Your task to perform on an android device: check storage Image 0: 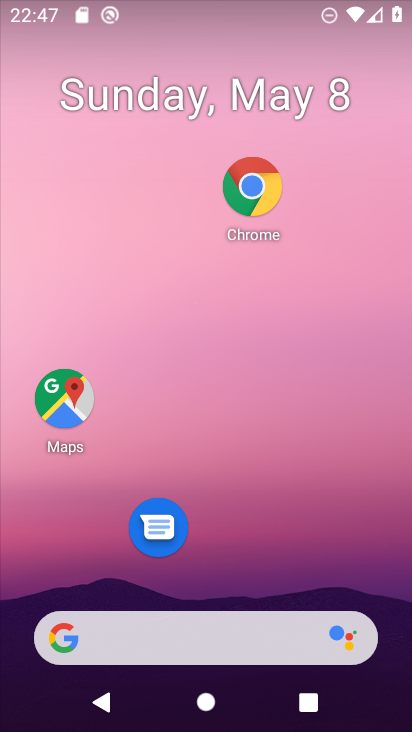
Step 0: drag from (215, 470) to (217, 379)
Your task to perform on an android device: check storage Image 1: 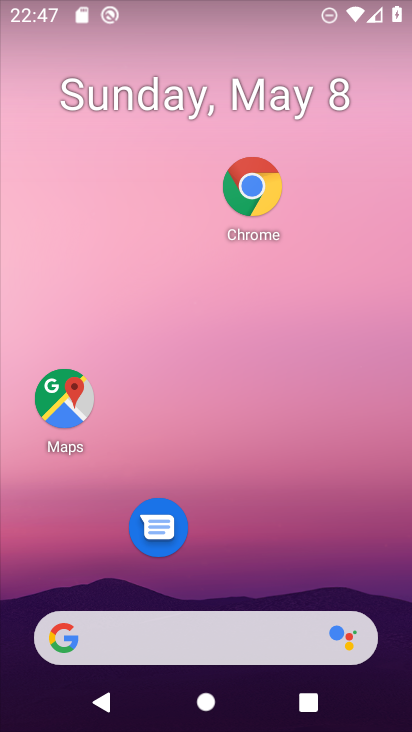
Step 1: drag from (289, 486) to (319, 243)
Your task to perform on an android device: check storage Image 2: 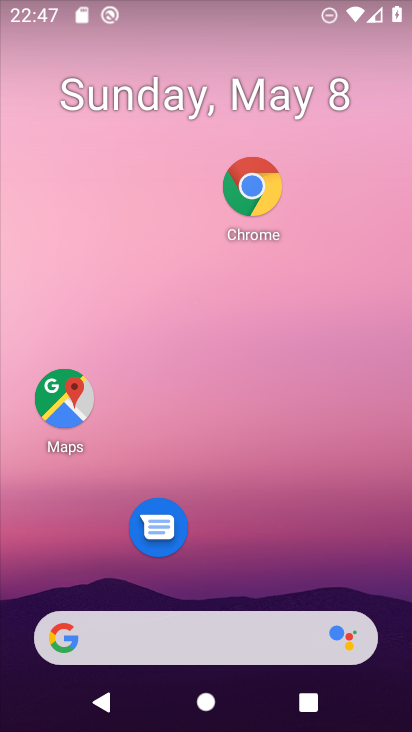
Step 2: drag from (287, 562) to (327, 165)
Your task to perform on an android device: check storage Image 3: 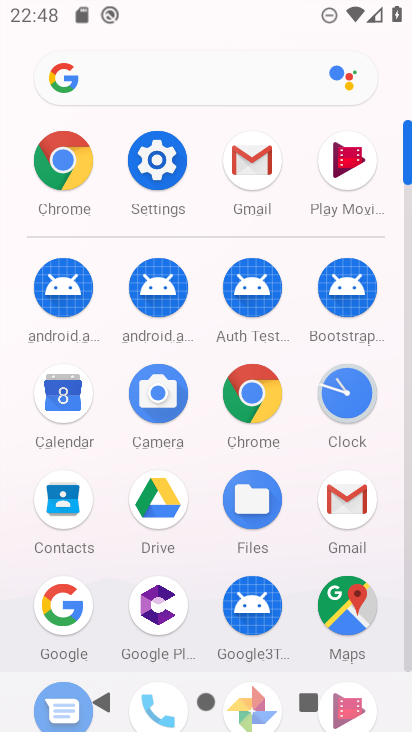
Step 3: click (151, 147)
Your task to perform on an android device: check storage Image 4: 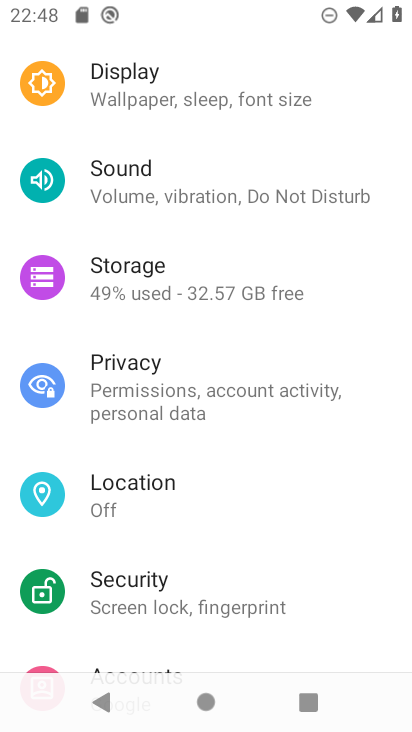
Step 4: click (172, 289)
Your task to perform on an android device: check storage Image 5: 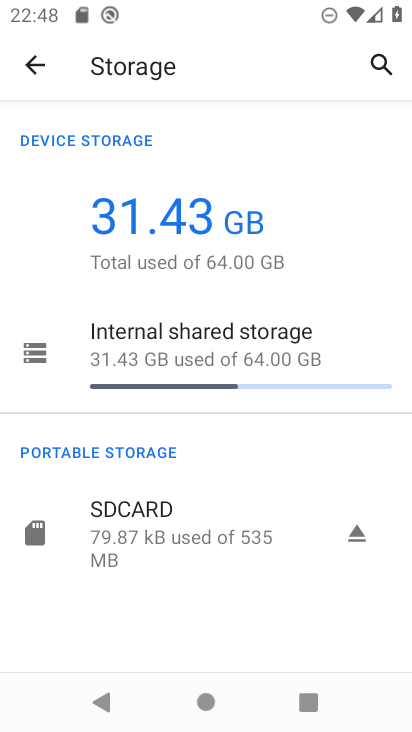
Step 5: task complete